Your task to perform on an android device: open device folders in google photos Image 0: 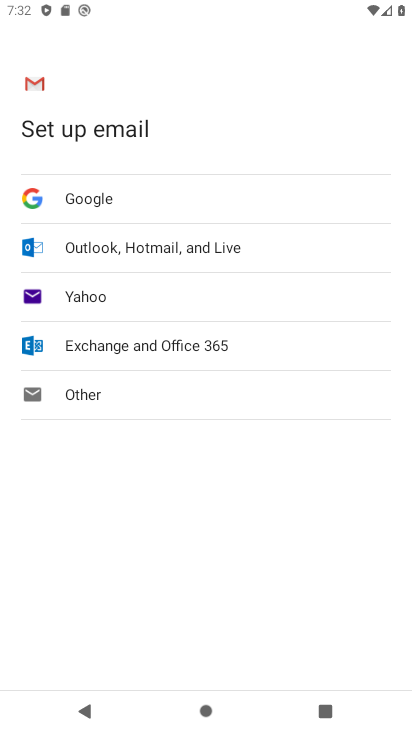
Step 0: press home button
Your task to perform on an android device: open device folders in google photos Image 1: 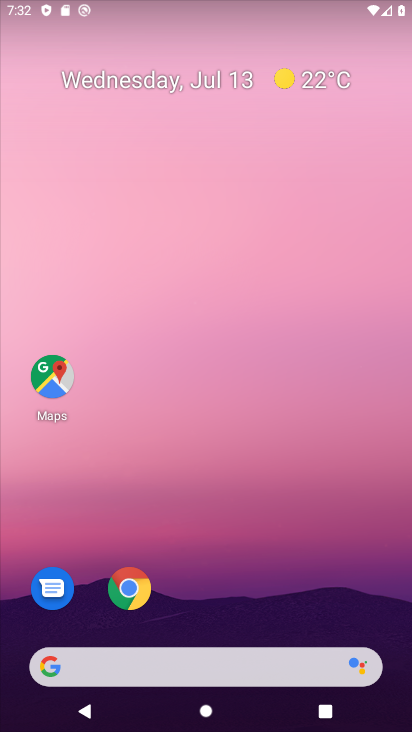
Step 1: drag from (232, 572) to (271, 205)
Your task to perform on an android device: open device folders in google photos Image 2: 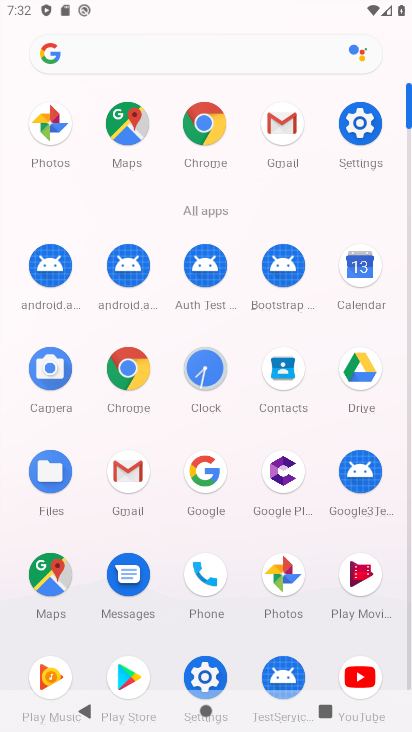
Step 2: click (288, 572)
Your task to perform on an android device: open device folders in google photos Image 3: 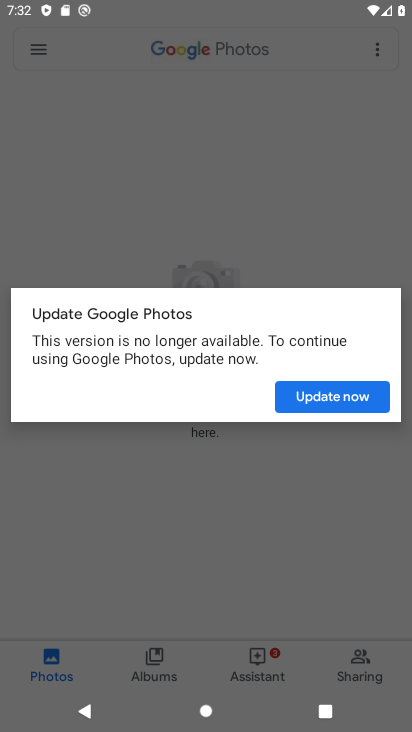
Step 3: press back button
Your task to perform on an android device: open device folders in google photos Image 4: 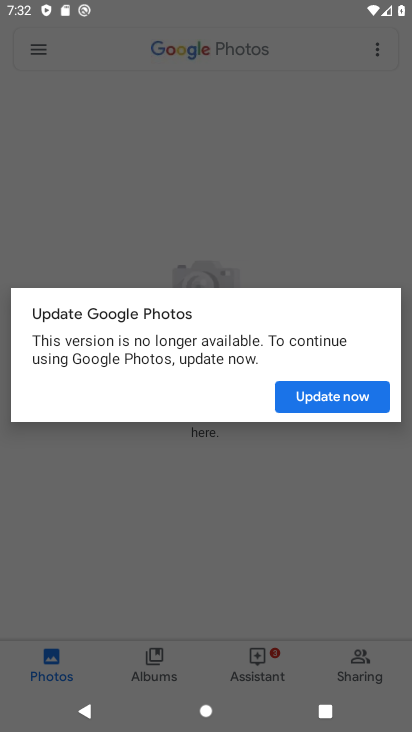
Step 4: click (300, 393)
Your task to perform on an android device: open device folders in google photos Image 5: 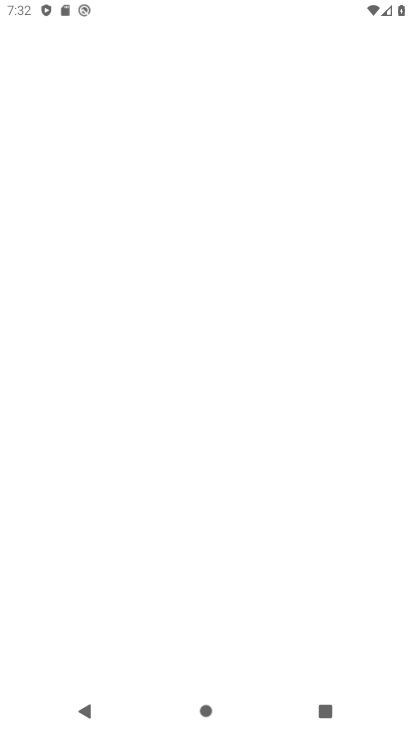
Step 5: press back button
Your task to perform on an android device: open device folders in google photos Image 6: 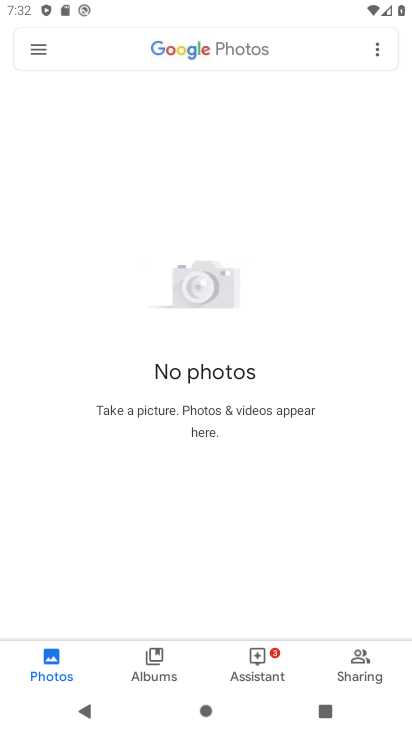
Step 6: click (161, 654)
Your task to perform on an android device: open device folders in google photos Image 7: 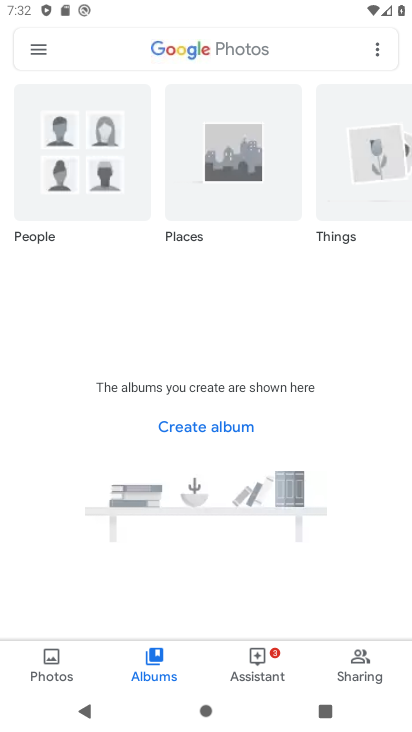
Step 7: task complete